Your task to perform on an android device: open app "ZOOM Cloud Meetings" (install if not already installed) and enter user name: "bauxite@icloud.com" and password: "dim" Image 0: 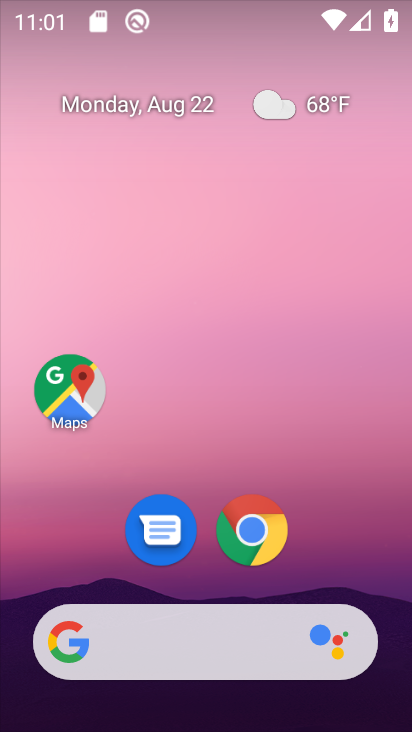
Step 0: drag from (170, 657) to (215, 109)
Your task to perform on an android device: open app "ZOOM Cloud Meetings" (install if not already installed) and enter user name: "bauxite@icloud.com" and password: "dim" Image 1: 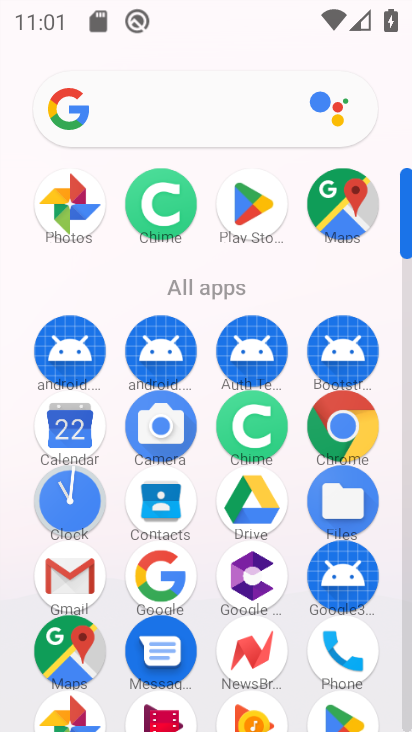
Step 1: click (255, 206)
Your task to perform on an android device: open app "ZOOM Cloud Meetings" (install if not already installed) and enter user name: "bauxite@icloud.com" and password: "dim" Image 2: 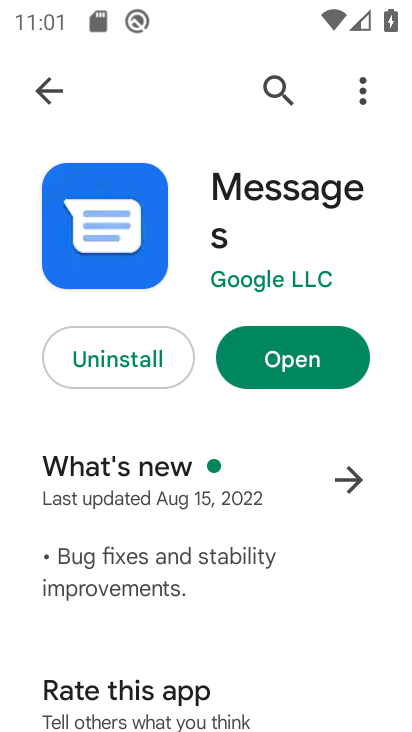
Step 2: press back button
Your task to perform on an android device: open app "ZOOM Cloud Meetings" (install if not already installed) and enter user name: "bauxite@icloud.com" and password: "dim" Image 3: 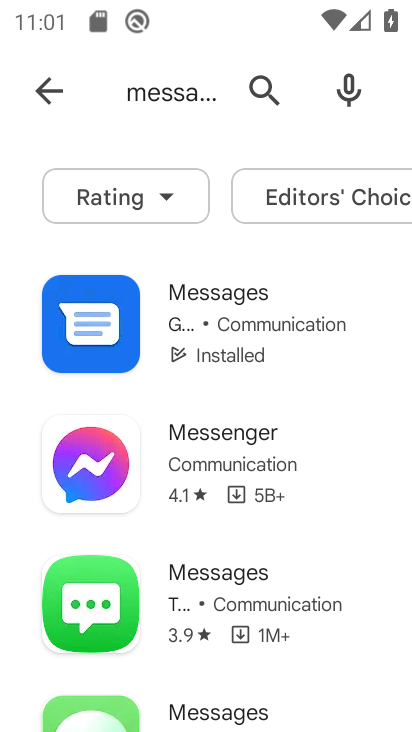
Step 3: press back button
Your task to perform on an android device: open app "ZOOM Cloud Meetings" (install if not already installed) and enter user name: "bauxite@icloud.com" and password: "dim" Image 4: 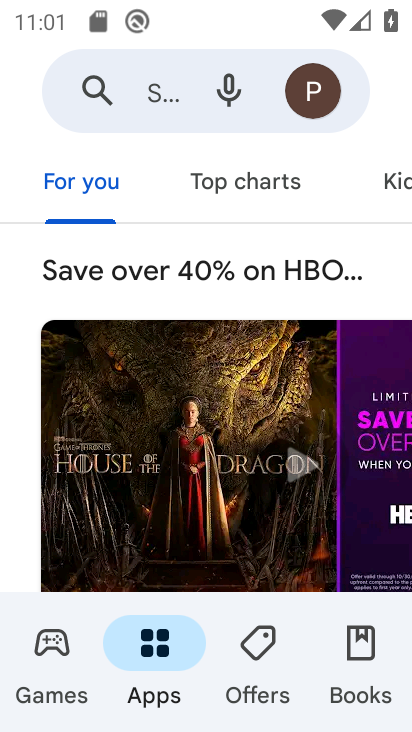
Step 4: click (166, 108)
Your task to perform on an android device: open app "ZOOM Cloud Meetings" (install if not already installed) and enter user name: "bauxite@icloud.com" and password: "dim" Image 5: 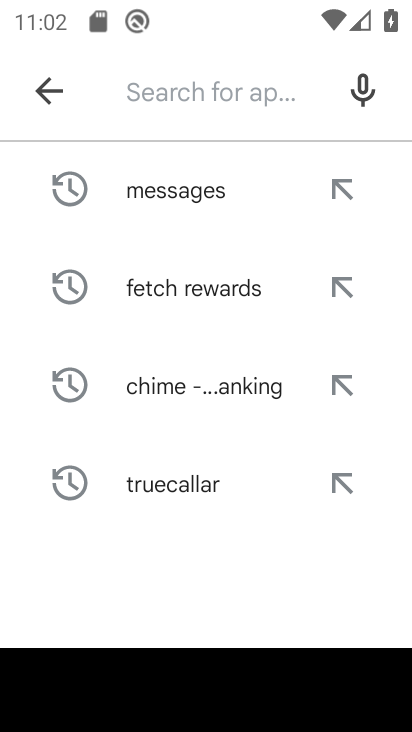
Step 5: type "ZOOM Cloud Meetings"
Your task to perform on an android device: open app "ZOOM Cloud Meetings" (install if not already installed) and enter user name: "bauxite@icloud.com" and password: "dim" Image 6: 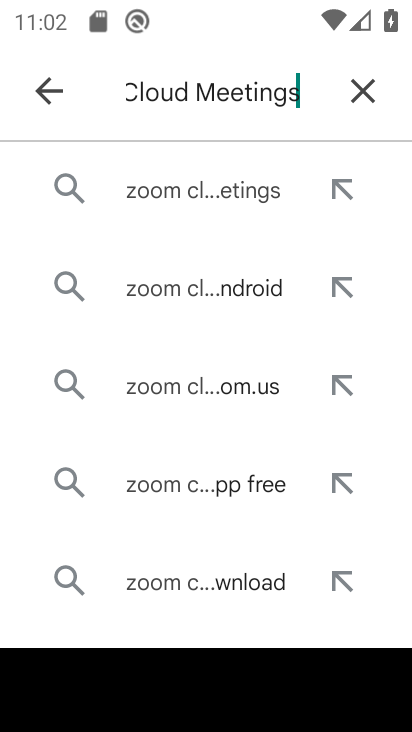
Step 6: click (175, 191)
Your task to perform on an android device: open app "ZOOM Cloud Meetings" (install if not already installed) and enter user name: "bauxite@icloud.com" and password: "dim" Image 7: 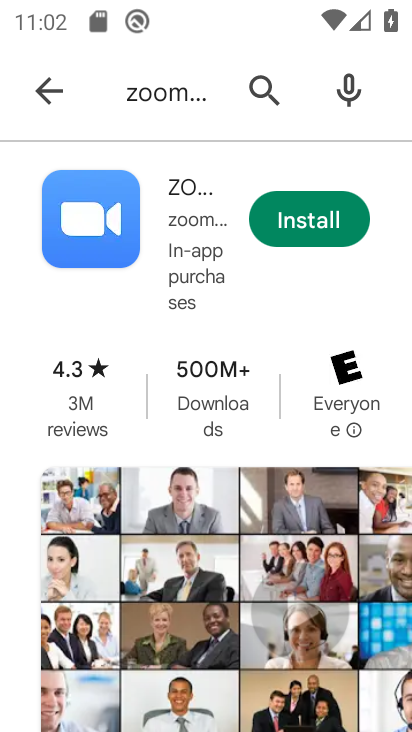
Step 7: click (314, 232)
Your task to perform on an android device: open app "ZOOM Cloud Meetings" (install if not already installed) and enter user name: "bauxite@icloud.com" and password: "dim" Image 8: 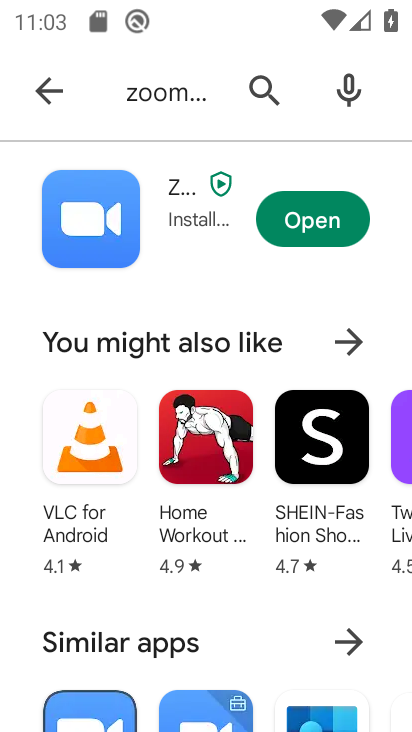
Step 8: click (318, 220)
Your task to perform on an android device: open app "ZOOM Cloud Meetings" (install if not already installed) and enter user name: "bauxite@icloud.com" and password: "dim" Image 9: 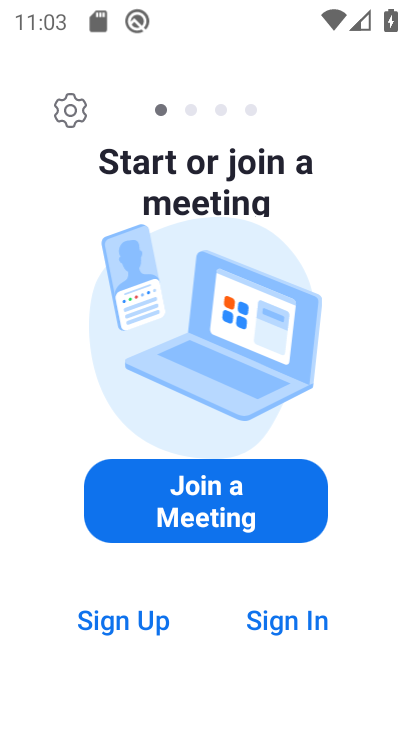
Step 9: click (290, 611)
Your task to perform on an android device: open app "ZOOM Cloud Meetings" (install if not already installed) and enter user name: "bauxite@icloud.com" and password: "dim" Image 10: 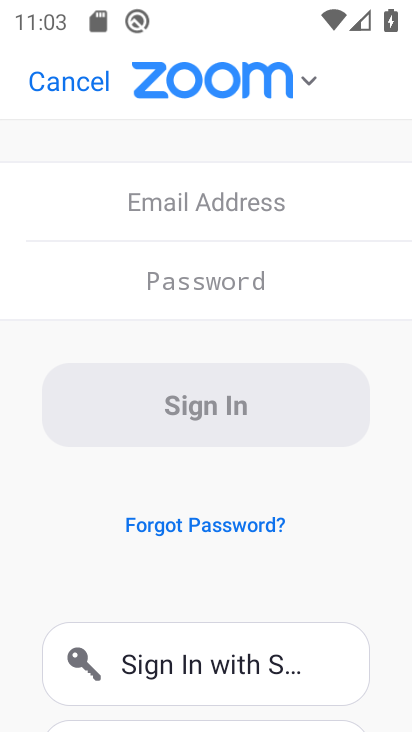
Step 10: click (235, 193)
Your task to perform on an android device: open app "ZOOM Cloud Meetings" (install if not already installed) and enter user name: "bauxite@icloud.com" and password: "dim" Image 11: 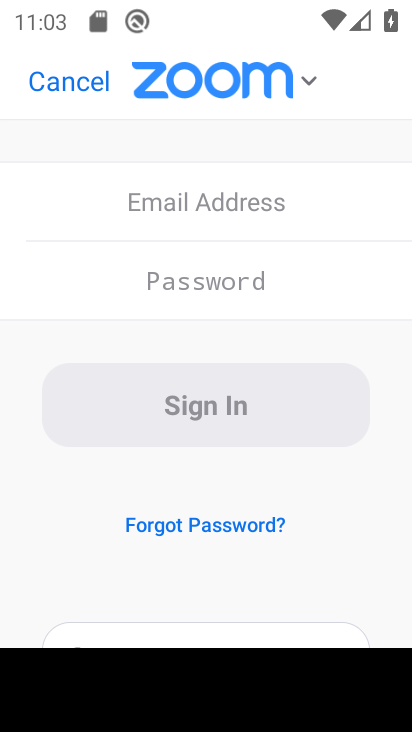
Step 11: type "bauxite@icloud.com"
Your task to perform on an android device: open app "ZOOM Cloud Meetings" (install if not already installed) and enter user name: "bauxite@icloud.com" and password: "dim" Image 12: 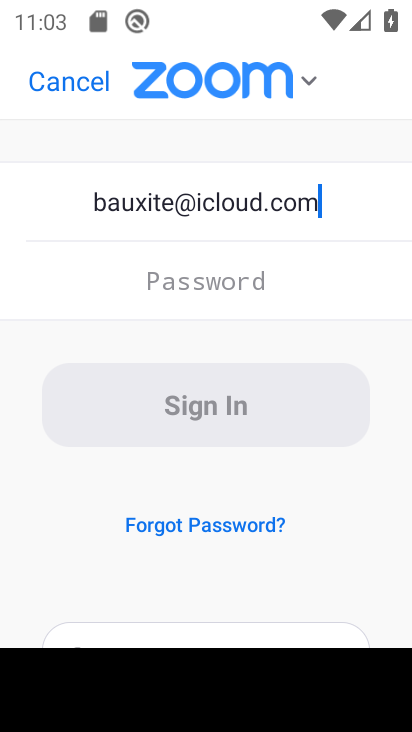
Step 12: type ""
Your task to perform on an android device: open app "ZOOM Cloud Meetings" (install if not already installed) and enter user name: "bauxite@icloud.com" and password: "dim" Image 13: 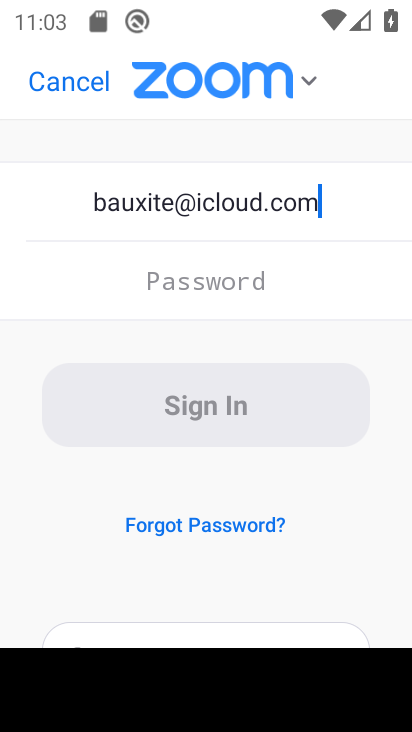
Step 13: click (175, 286)
Your task to perform on an android device: open app "ZOOM Cloud Meetings" (install if not already installed) and enter user name: "bauxite@icloud.com" and password: "dim" Image 14: 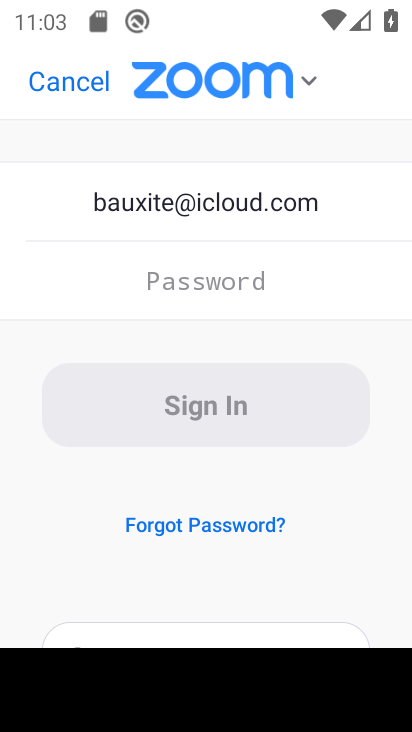
Step 14: type "dim"
Your task to perform on an android device: open app "ZOOM Cloud Meetings" (install if not already installed) and enter user name: "bauxite@icloud.com" and password: "dim" Image 15: 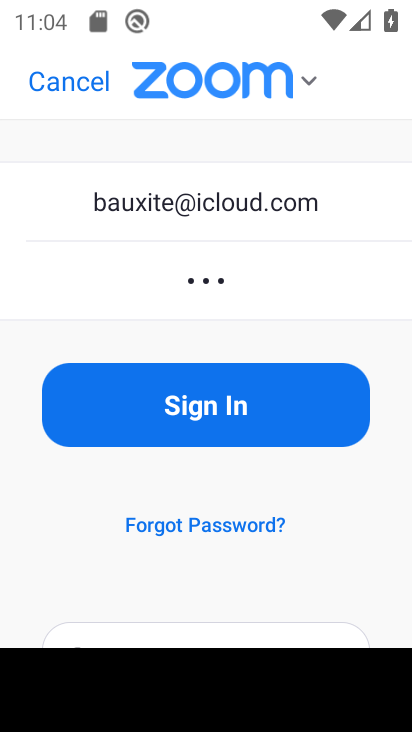
Step 15: task complete